Your task to perform on an android device: Is it going to rain this weekend? Image 0: 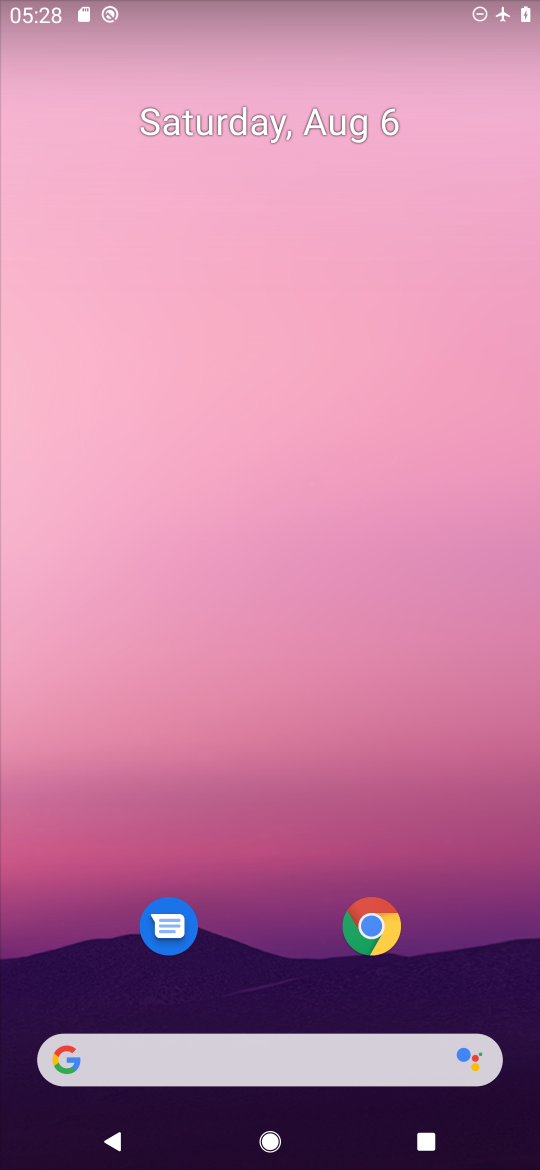
Step 0: drag from (259, 925) to (264, 240)
Your task to perform on an android device: Is it going to rain this weekend? Image 1: 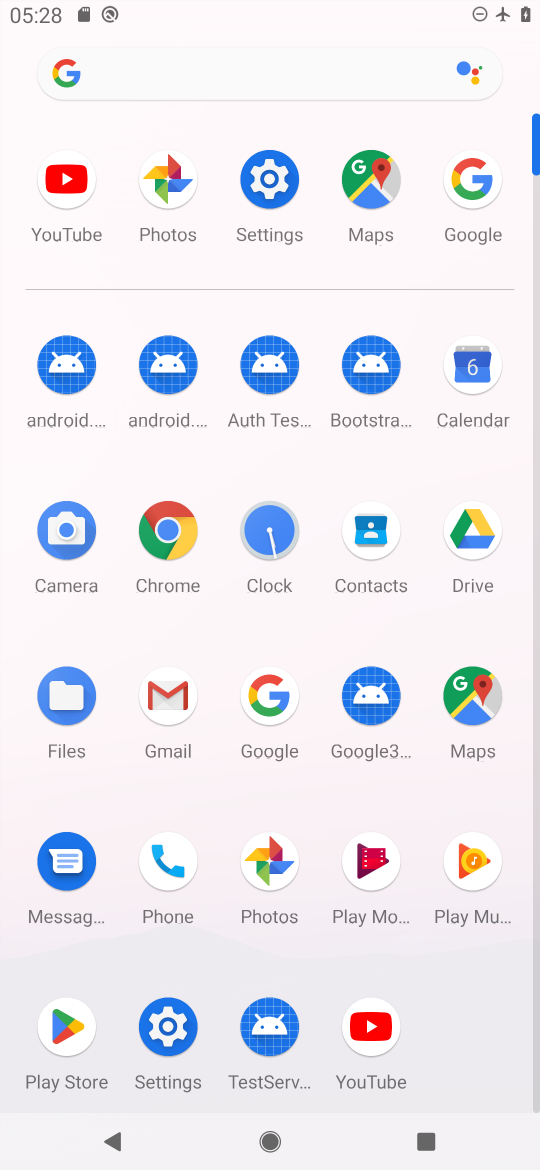
Step 1: click (453, 178)
Your task to perform on an android device: Is it going to rain this weekend? Image 2: 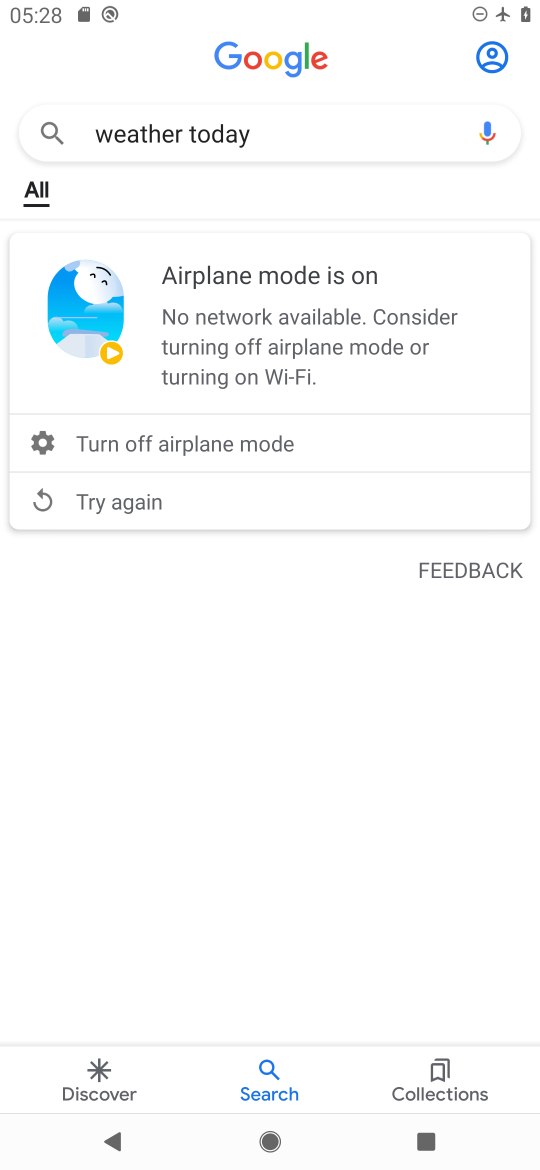
Step 2: click (264, 121)
Your task to perform on an android device: Is it going to rain this weekend? Image 3: 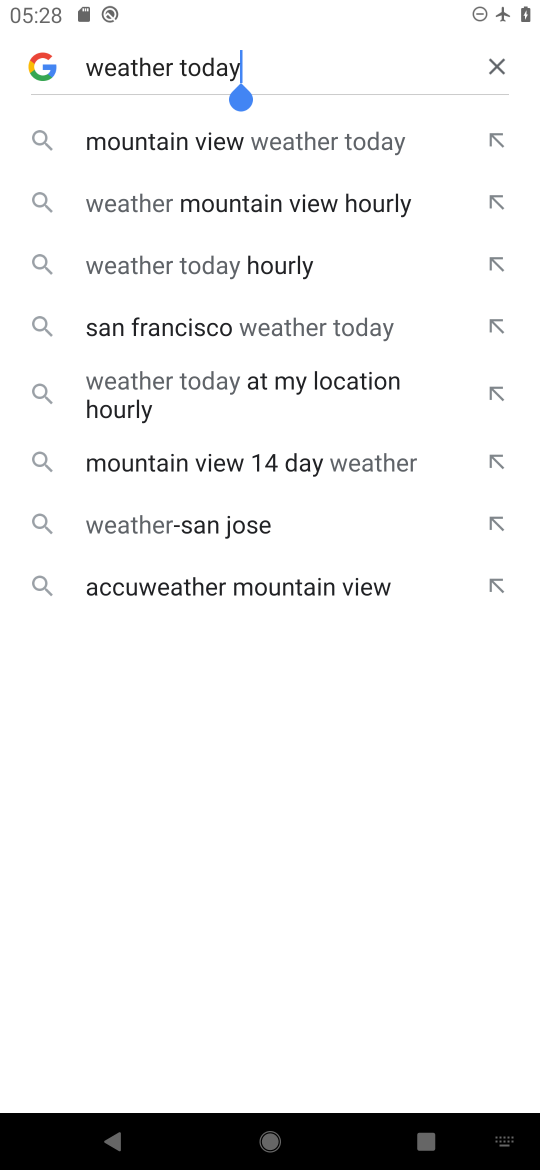
Step 3: task complete